Your task to perform on an android device: turn on airplane mode Image 0: 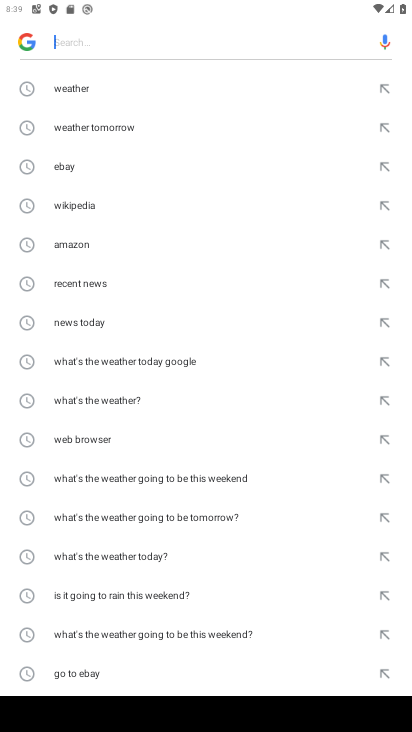
Step 0: press home button
Your task to perform on an android device: turn on airplane mode Image 1: 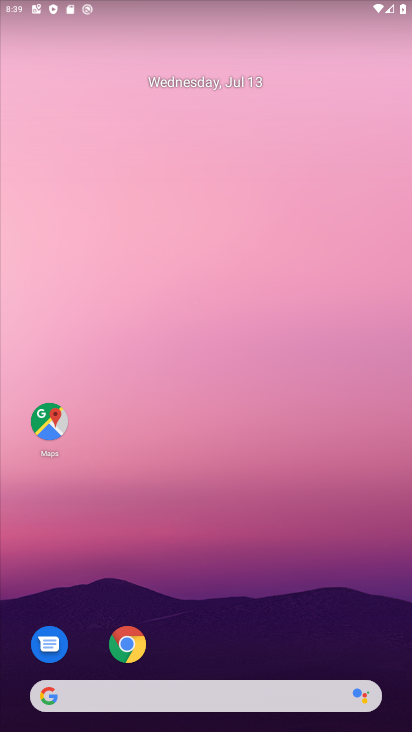
Step 1: click (226, 724)
Your task to perform on an android device: turn on airplane mode Image 2: 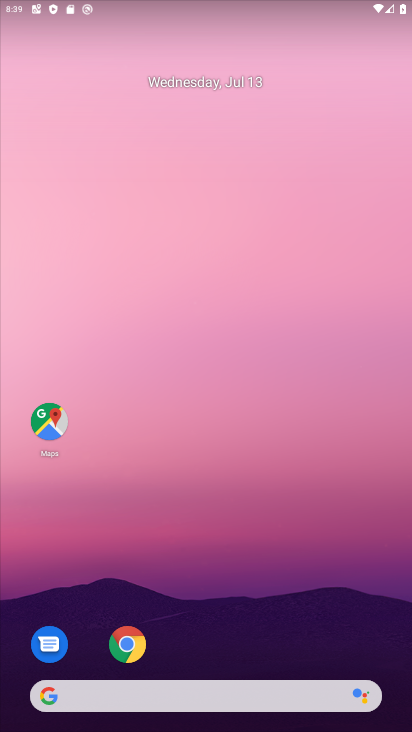
Step 2: drag from (229, 715) to (224, 354)
Your task to perform on an android device: turn on airplane mode Image 3: 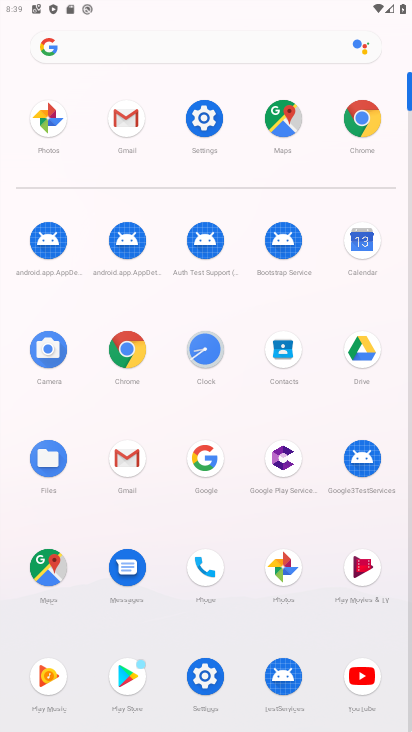
Step 3: click (198, 120)
Your task to perform on an android device: turn on airplane mode Image 4: 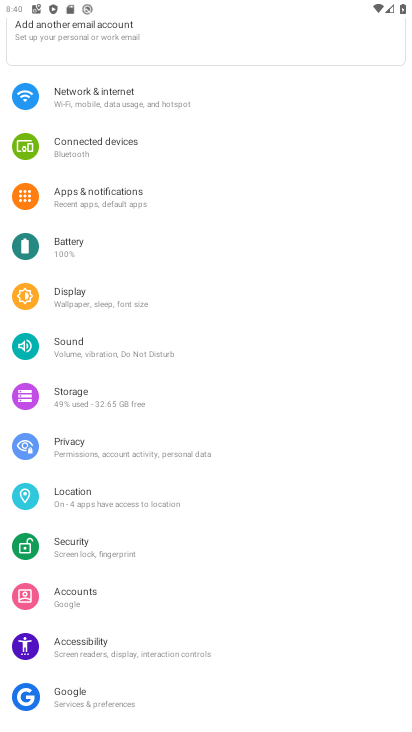
Step 4: click (95, 91)
Your task to perform on an android device: turn on airplane mode Image 5: 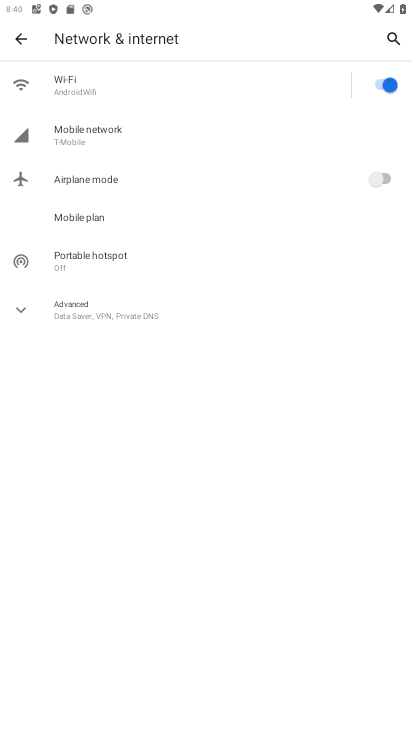
Step 5: click (386, 178)
Your task to perform on an android device: turn on airplane mode Image 6: 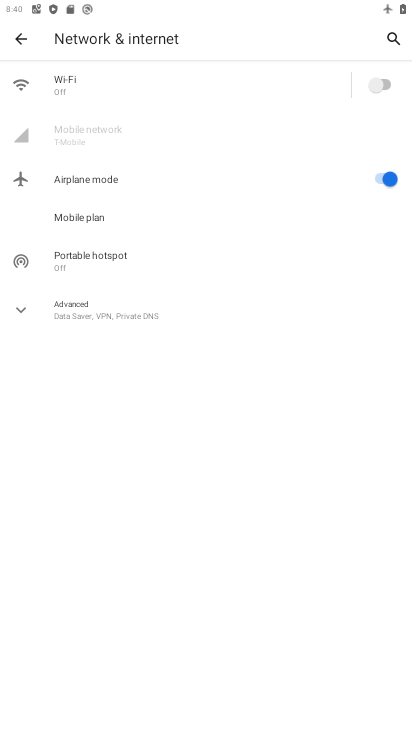
Step 6: task complete